Your task to perform on an android device: Search for sushi restaurants on Maps Image 0: 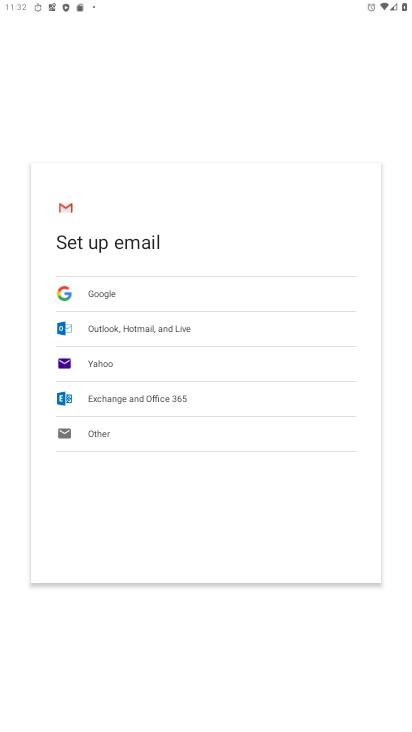
Step 0: press home button
Your task to perform on an android device: Search for sushi restaurants on Maps Image 1: 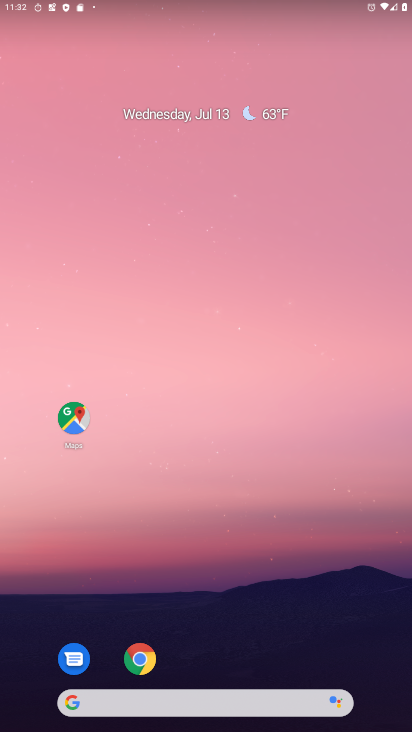
Step 1: drag from (255, 646) to (270, 98)
Your task to perform on an android device: Search for sushi restaurants on Maps Image 2: 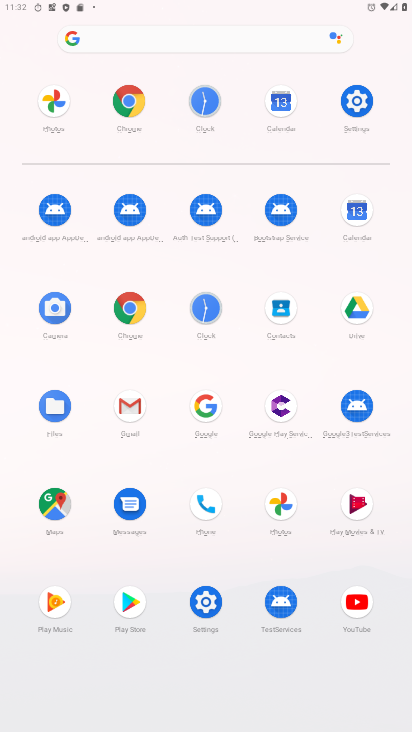
Step 2: click (49, 502)
Your task to perform on an android device: Search for sushi restaurants on Maps Image 3: 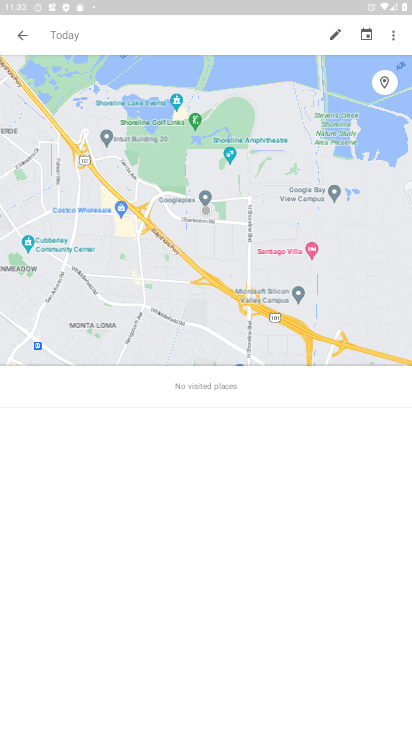
Step 3: click (22, 34)
Your task to perform on an android device: Search for sushi restaurants on Maps Image 4: 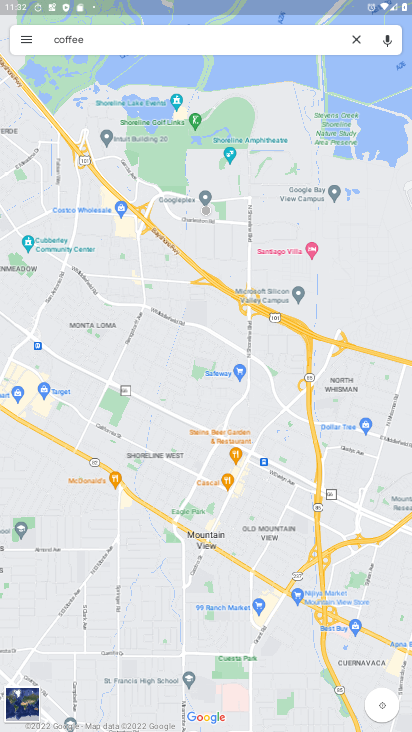
Step 4: click (107, 42)
Your task to perform on an android device: Search for sushi restaurants on Maps Image 5: 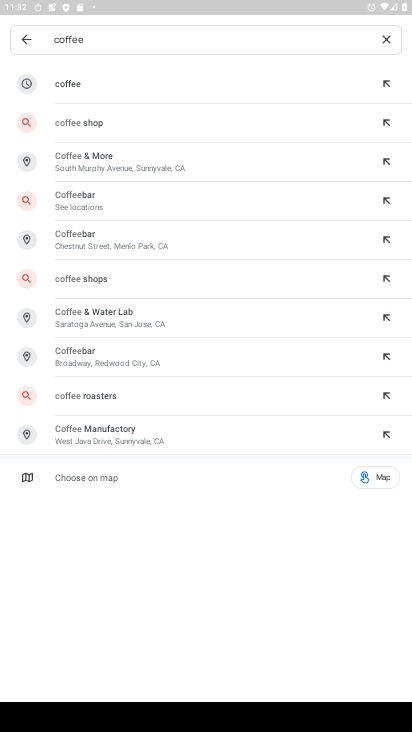
Step 5: click (391, 37)
Your task to perform on an android device: Search for sushi restaurants on Maps Image 6: 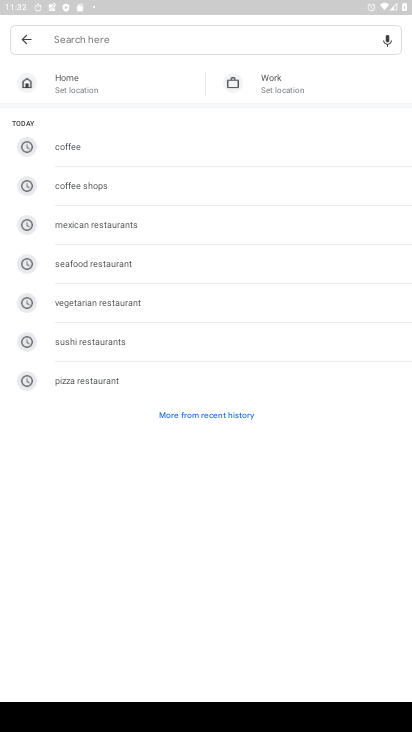
Step 6: click (124, 340)
Your task to perform on an android device: Search for sushi restaurants on Maps Image 7: 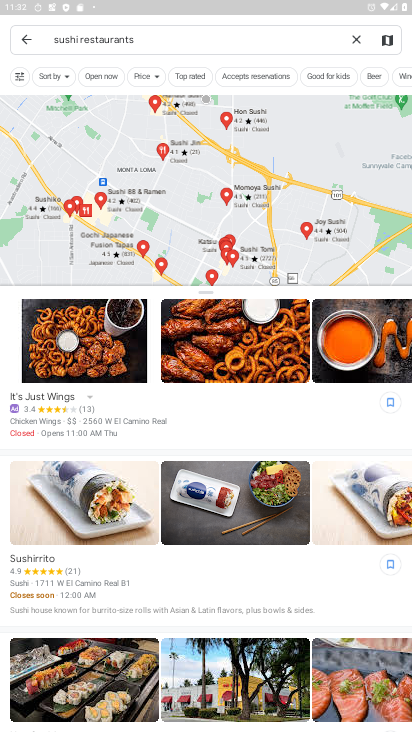
Step 7: task complete